Your task to perform on an android device: allow notifications from all sites in the chrome app Image 0: 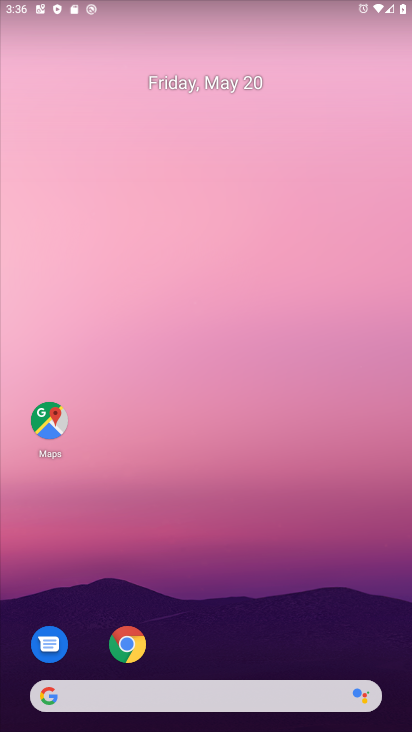
Step 0: click (123, 666)
Your task to perform on an android device: allow notifications from all sites in the chrome app Image 1: 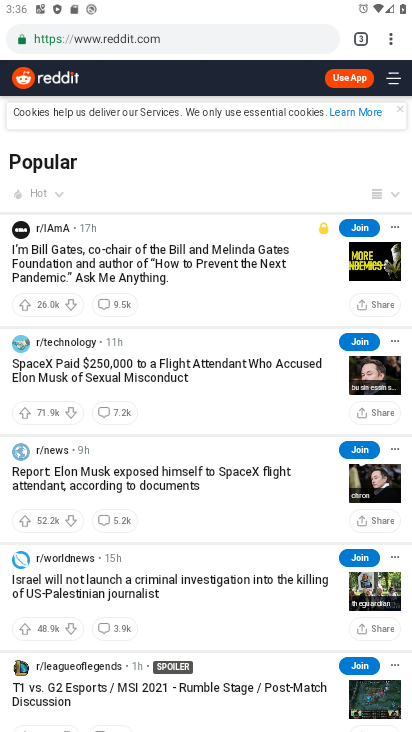
Step 1: click (398, 34)
Your task to perform on an android device: allow notifications from all sites in the chrome app Image 2: 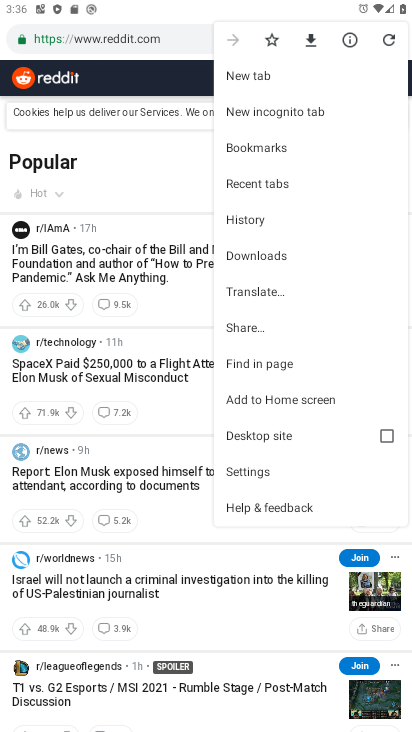
Step 2: click (272, 479)
Your task to perform on an android device: allow notifications from all sites in the chrome app Image 3: 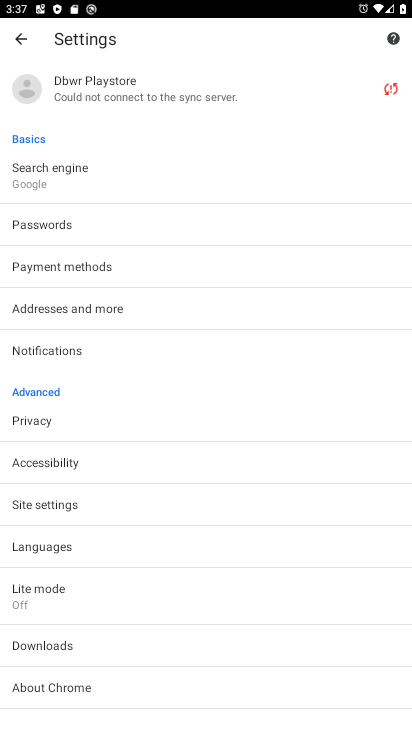
Step 3: click (44, 353)
Your task to perform on an android device: allow notifications from all sites in the chrome app Image 4: 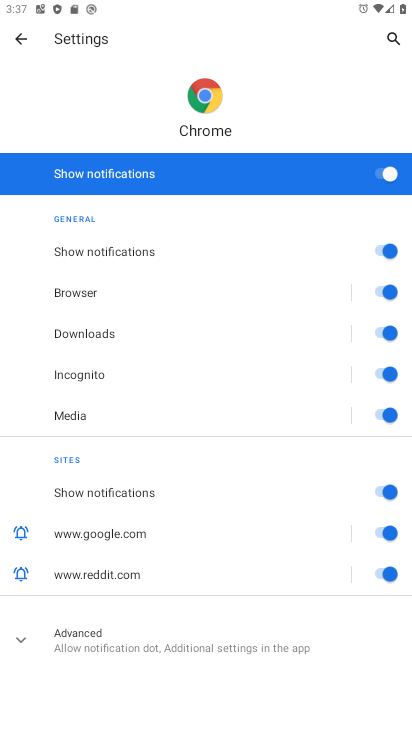
Step 4: task complete